Your task to perform on an android device: make emails show in primary in the gmail app Image 0: 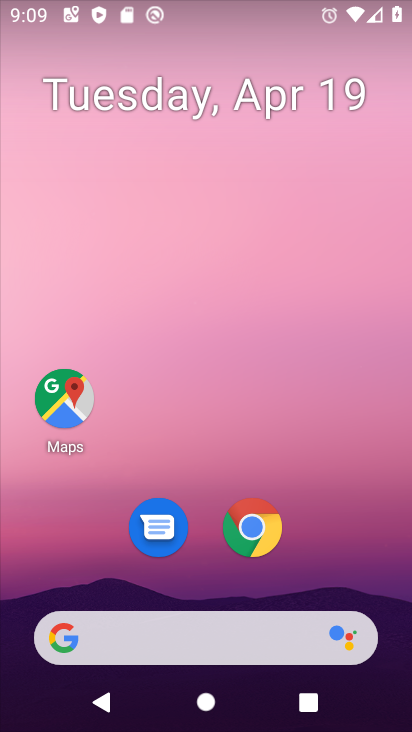
Step 0: drag from (316, 565) to (332, 225)
Your task to perform on an android device: make emails show in primary in the gmail app Image 1: 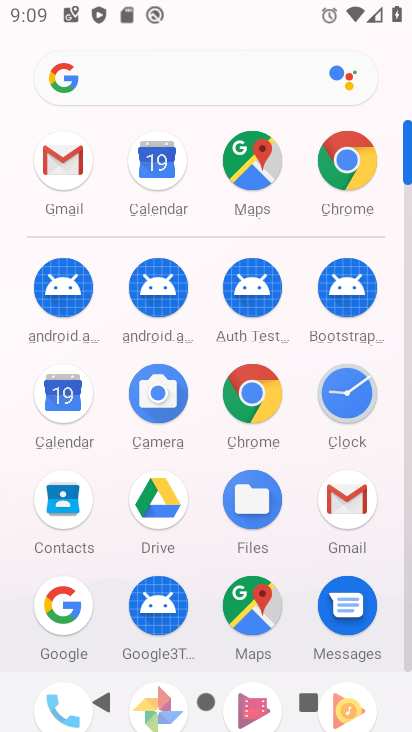
Step 1: click (61, 160)
Your task to perform on an android device: make emails show in primary in the gmail app Image 2: 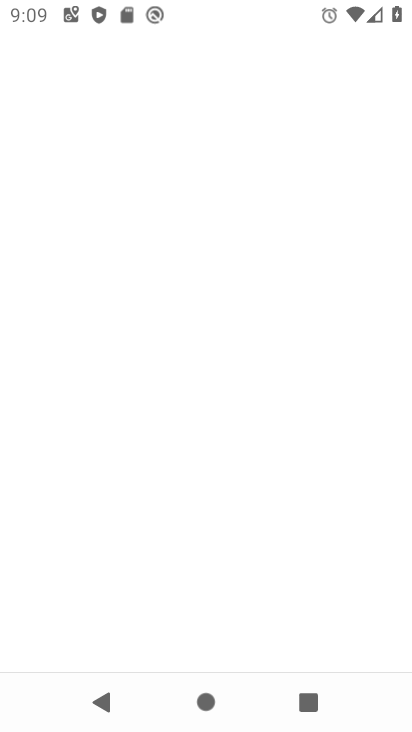
Step 2: click (61, 160)
Your task to perform on an android device: make emails show in primary in the gmail app Image 3: 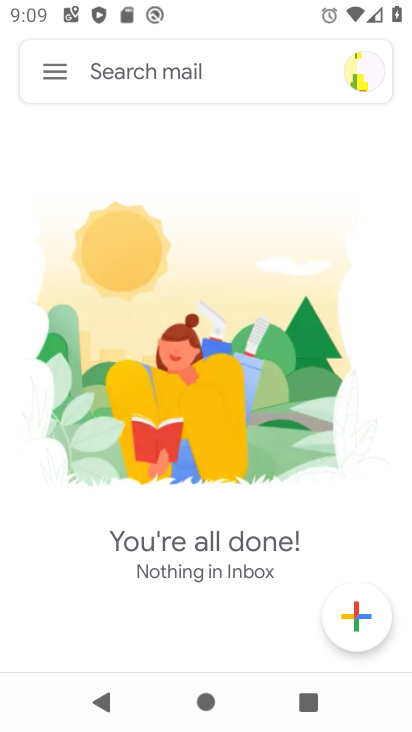
Step 3: click (52, 75)
Your task to perform on an android device: make emails show in primary in the gmail app Image 4: 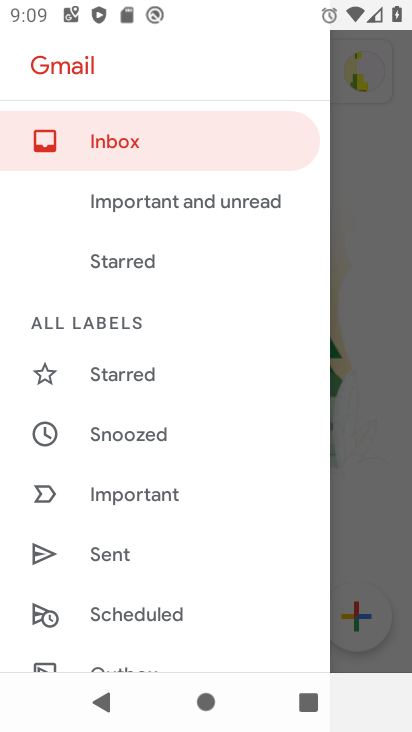
Step 4: drag from (145, 606) to (203, 257)
Your task to perform on an android device: make emails show in primary in the gmail app Image 5: 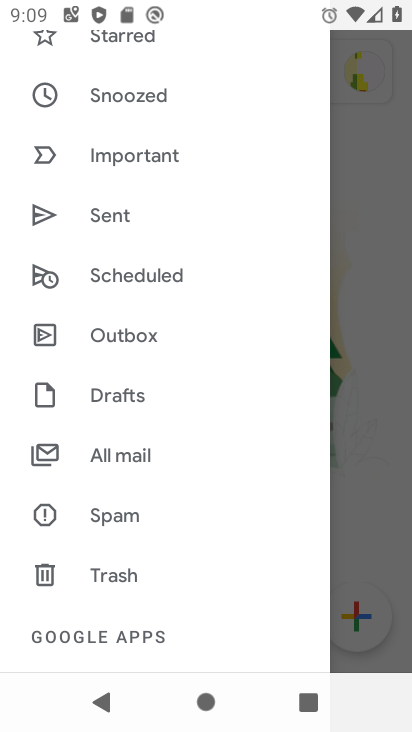
Step 5: click (144, 449)
Your task to perform on an android device: make emails show in primary in the gmail app Image 6: 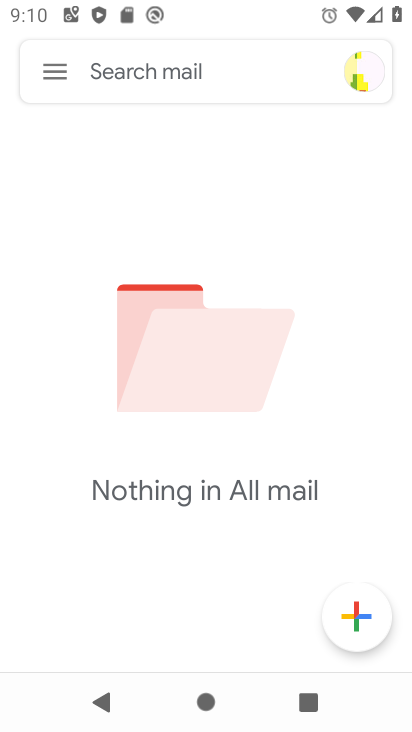
Step 6: click (63, 74)
Your task to perform on an android device: make emails show in primary in the gmail app Image 7: 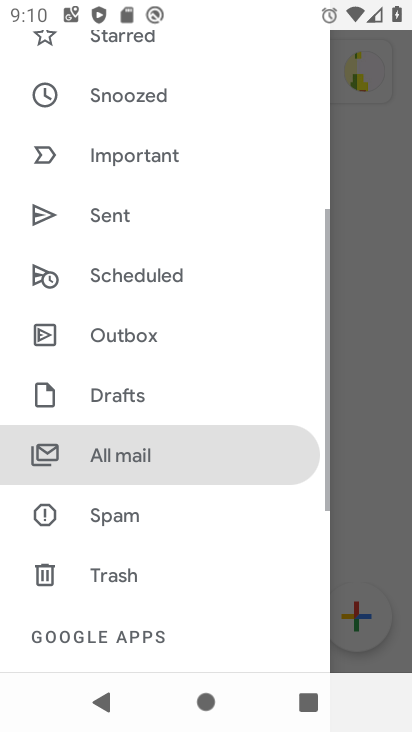
Step 7: drag from (124, 253) to (92, 522)
Your task to perform on an android device: make emails show in primary in the gmail app Image 8: 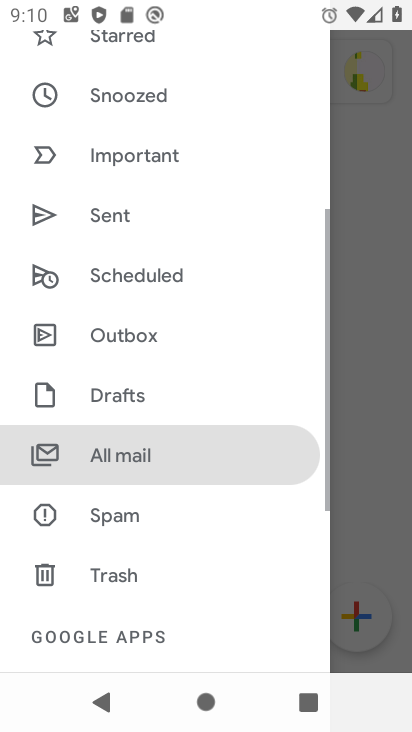
Step 8: drag from (142, 299) to (200, 624)
Your task to perform on an android device: make emails show in primary in the gmail app Image 9: 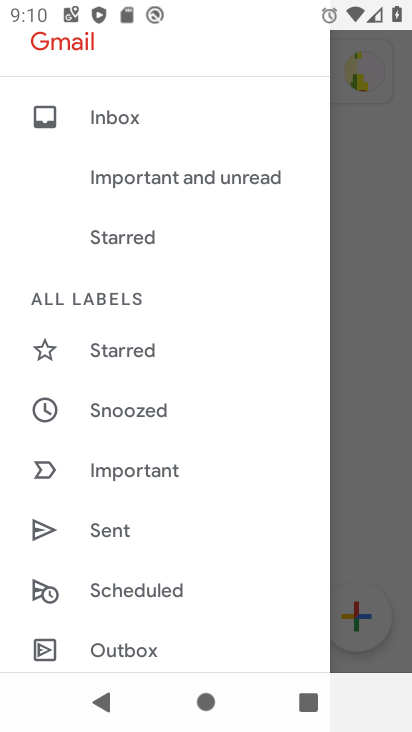
Step 9: click (140, 131)
Your task to perform on an android device: make emails show in primary in the gmail app Image 10: 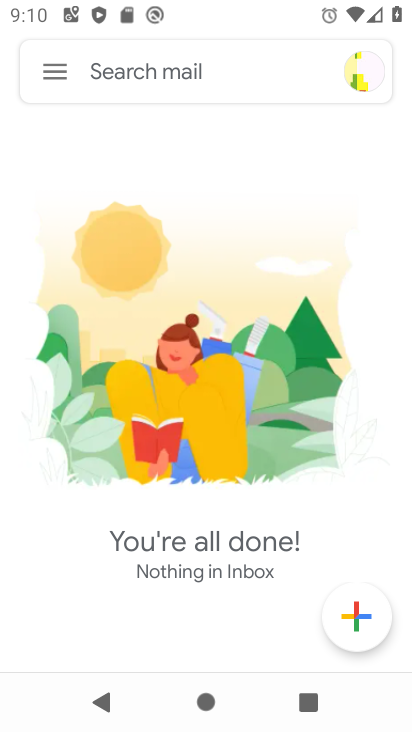
Step 10: task complete